Your task to perform on an android device: toggle priority inbox in the gmail app Image 0: 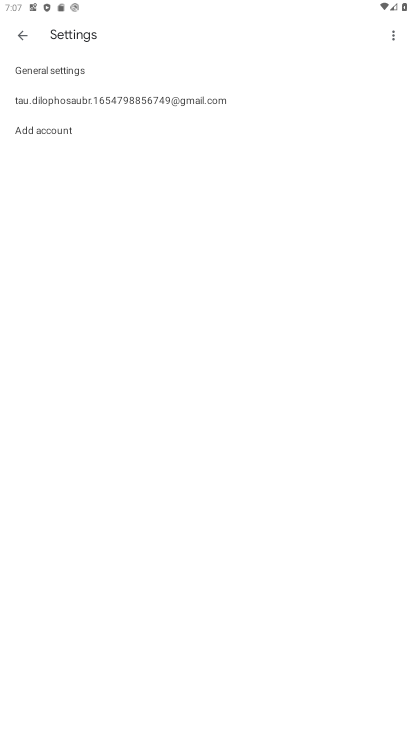
Step 0: press home button
Your task to perform on an android device: toggle priority inbox in the gmail app Image 1: 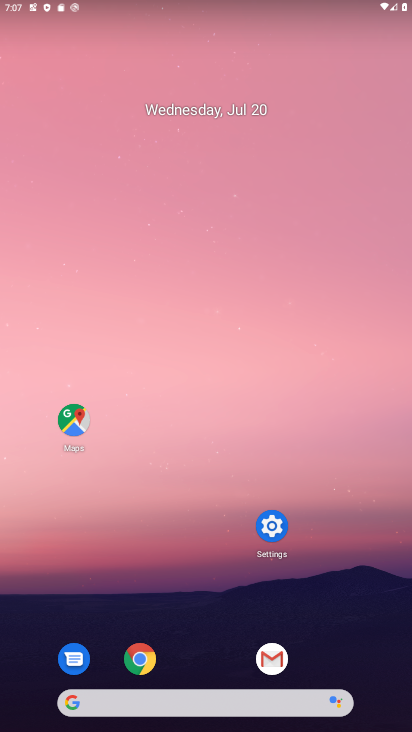
Step 1: click (273, 668)
Your task to perform on an android device: toggle priority inbox in the gmail app Image 2: 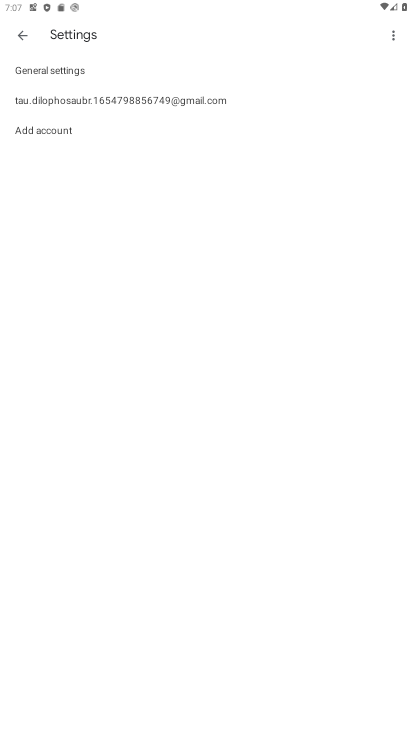
Step 2: click (95, 106)
Your task to perform on an android device: toggle priority inbox in the gmail app Image 3: 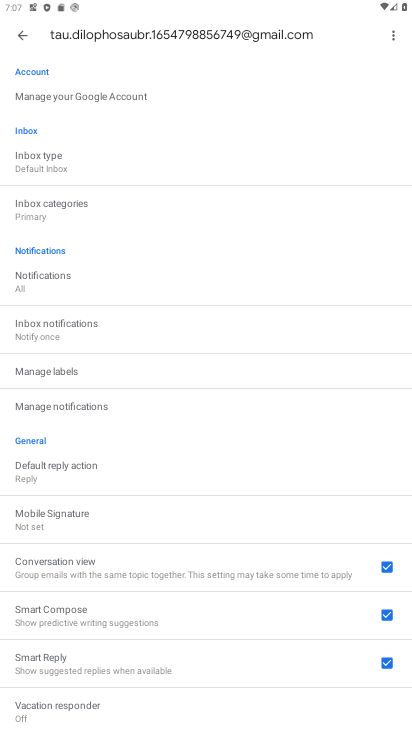
Step 3: click (67, 160)
Your task to perform on an android device: toggle priority inbox in the gmail app Image 4: 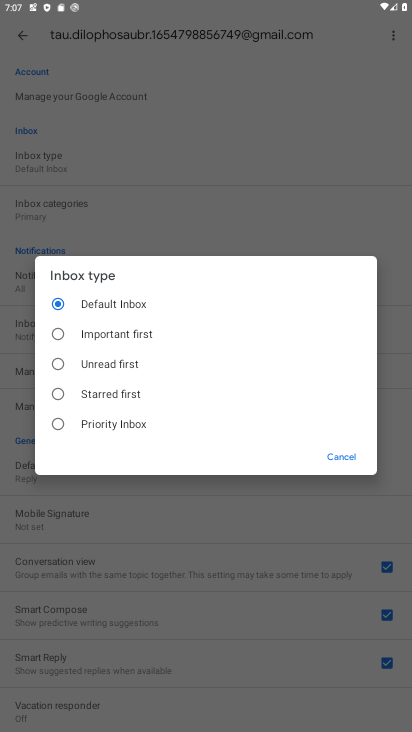
Step 4: click (106, 423)
Your task to perform on an android device: toggle priority inbox in the gmail app Image 5: 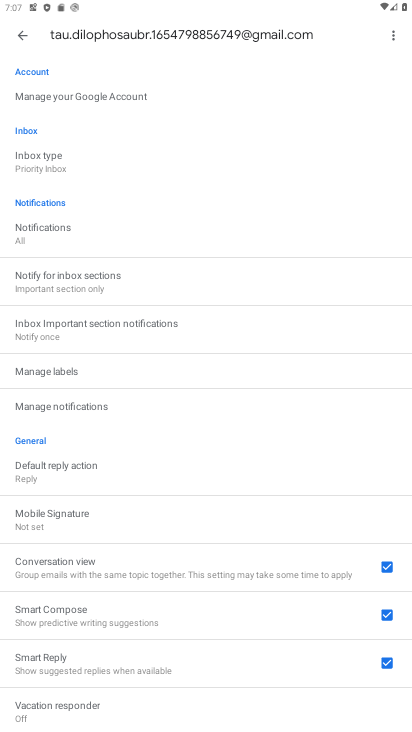
Step 5: task complete